Your task to perform on an android device: Open wifi settings Image 0: 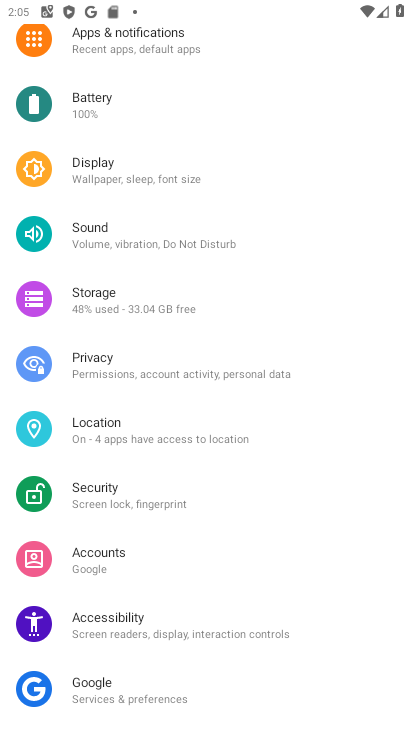
Step 0: press home button
Your task to perform on an android device: Open wifi settings Image 1: 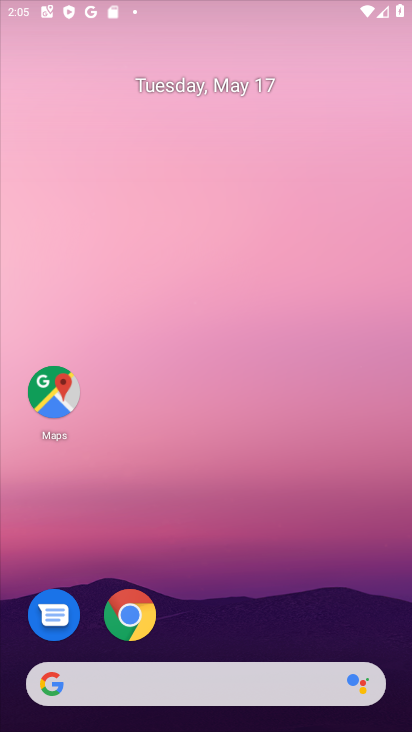
Step 1: drag from (140, 7) to (301, 704)
Your task to perform on an android device: Open wifi settings Image 2: 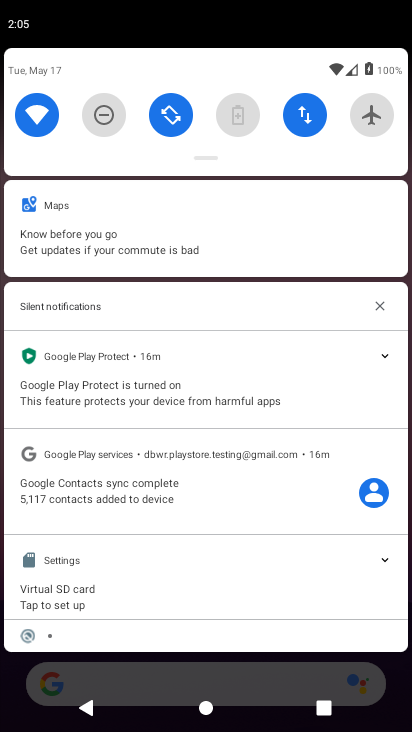
Step 2: click (39, 119)
Your task to perform on an android device: Open wifi settings Image 3: 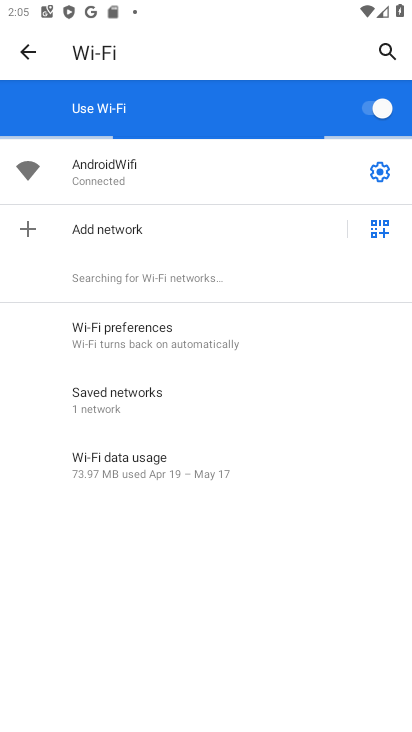
Step 3: task complete